Your task to perform on an android device: Open Google Chrome and open the bookmarks view Image 0: 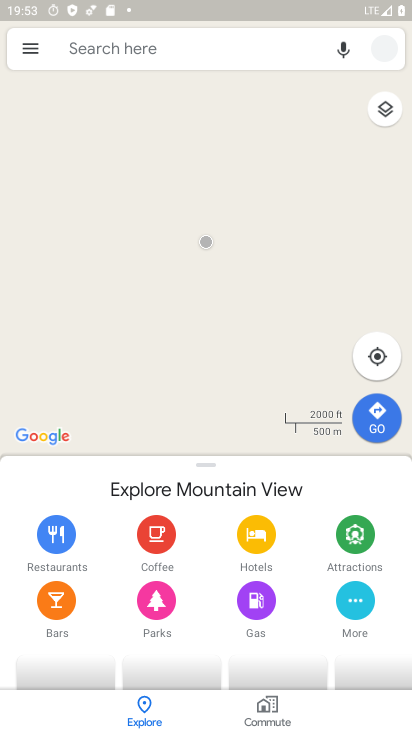
Step 0: press home button
Your task to perform on an android device: Open Google Chrome and open the bookmarks view Image 1: 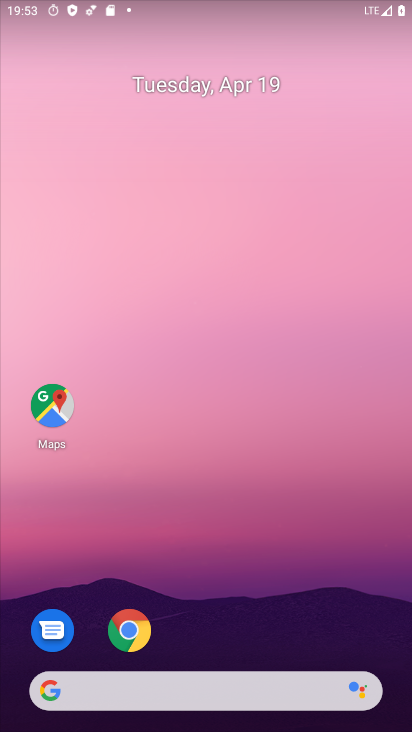
Step 1: drag from (185, 666) to (158, 0)
Your task to perform on an android device: Open Google Chrome and open the bookmarks view Image 2: 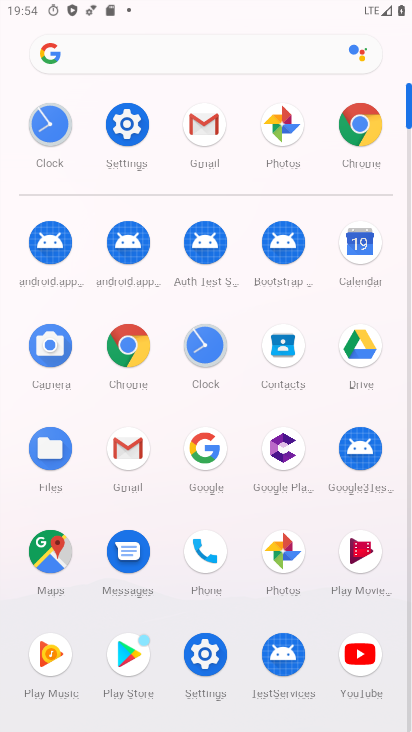
Step 2: click (131, 352)
Your task to perform on an android device: Open Google Chrome and open the bookmarks view Image 3: 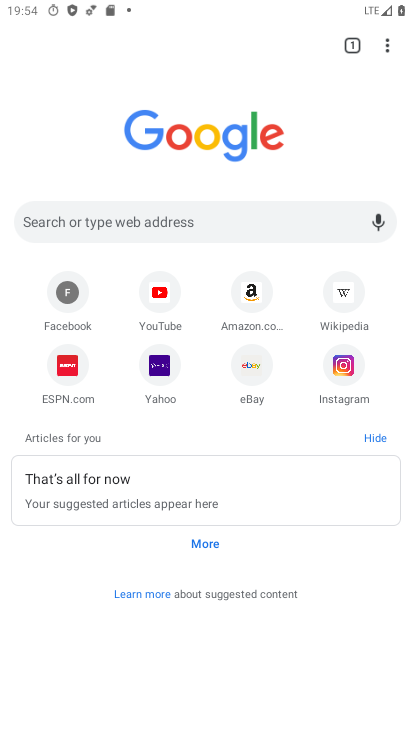
Step 3: click (386, 44)
Your task to perform on an android device: Open Google Chrome and open the bookmarks view Image 4: 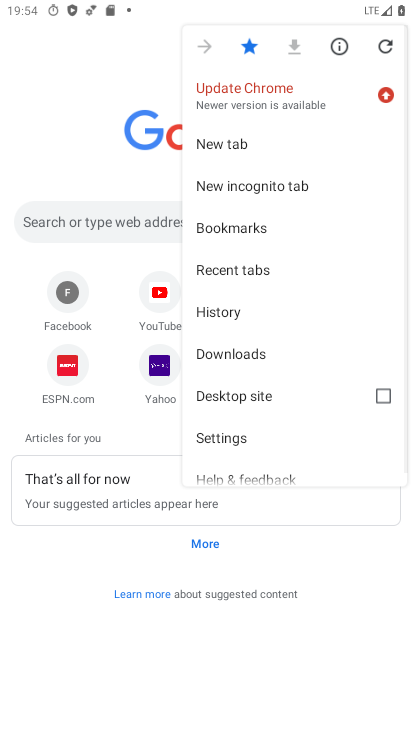
Step 4: click (254, 222)
Your task to perform on an android device: Open Google Chrome and open the bookmarks view Image 5: 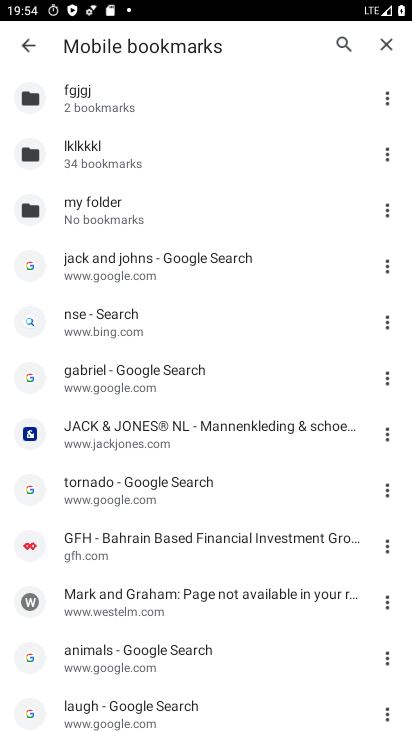
Step 5: task complete